Your task to perform on an android device: open wifi settings Image 0: 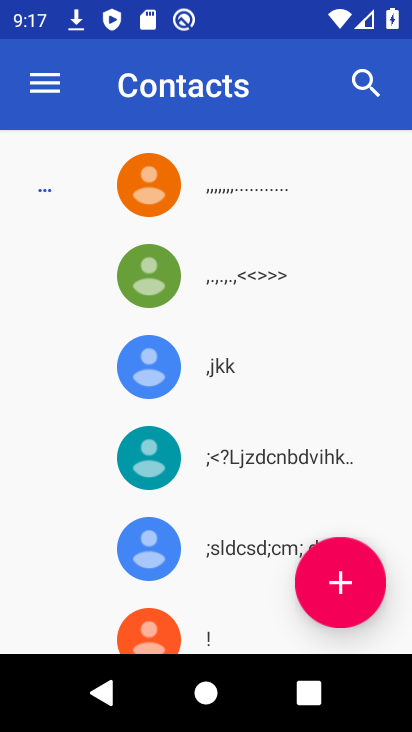
Step 0: press home button
Your task to perform on an android device: open wifi settings Image 1: 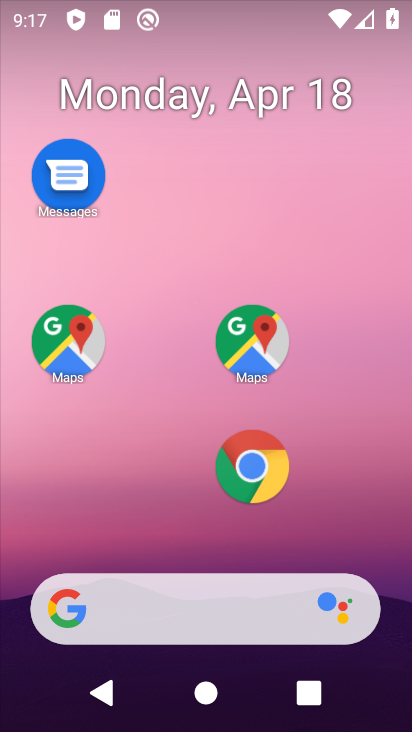
Step 1: drag from (177, 451) to (237, 7)
Your task to perform on an android device: open wifi settings Image 2: 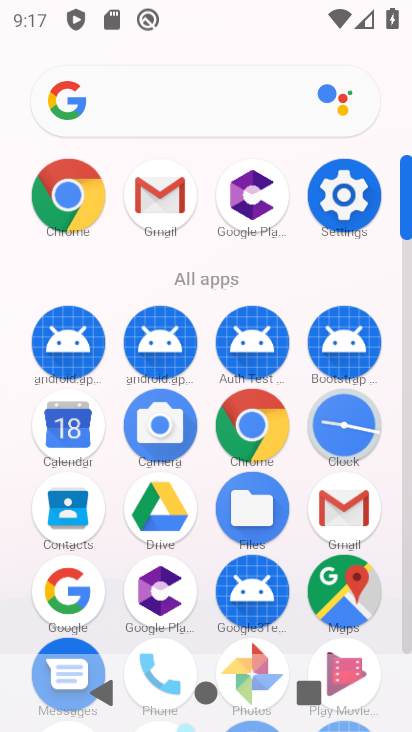
Step 2: click (350, 213)
Your task to perform on an android device: open wifi settings Image 3: 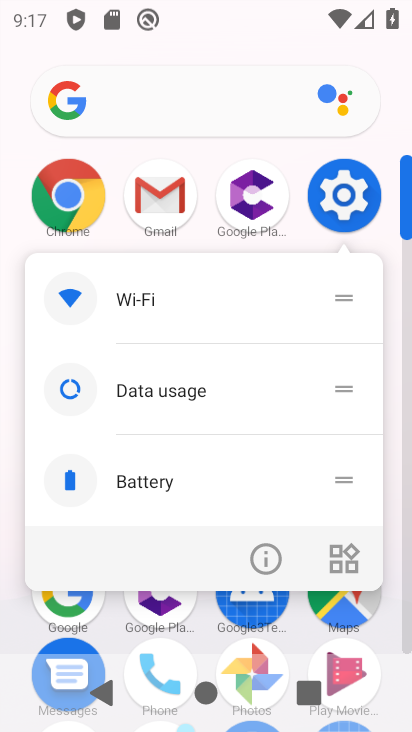
Step 3: click (118, 321)
Your task to perform on an android device: open wifi settings Image 4: 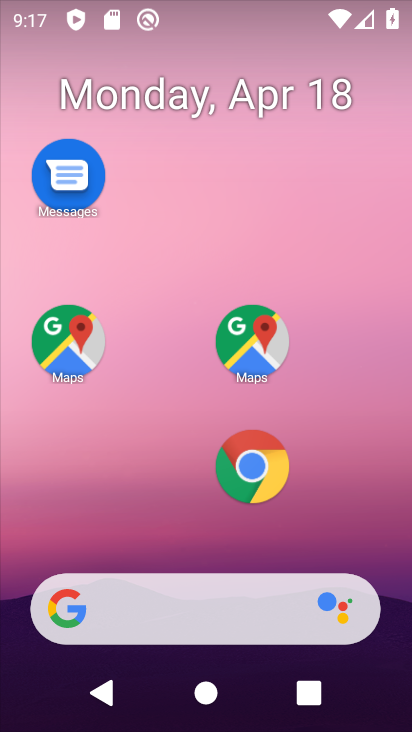
Step 4: drag from (183, 546) to (284, 3)
Your task to perform on an android device: open wifi settings Image 5: 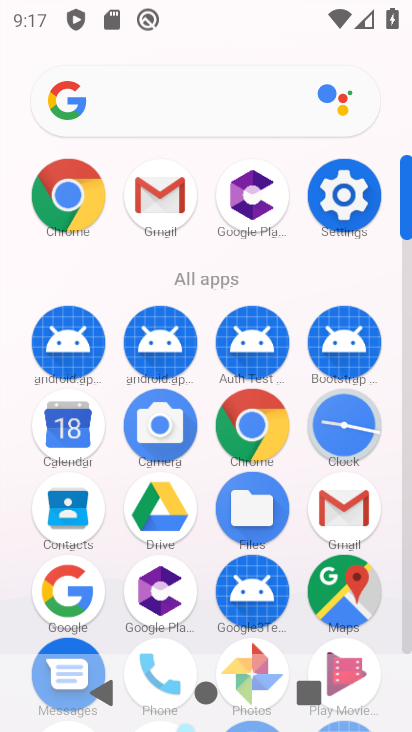
Step 5: click (361, 208)
Your task to perform on an android device: open wifi settings Image 6: 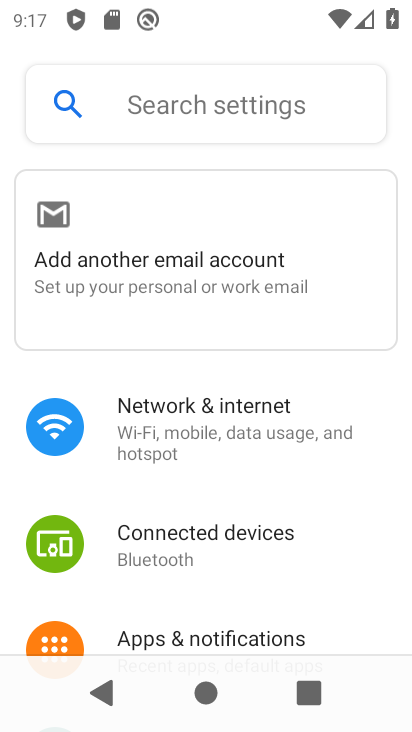
Step 6: click (158, 464)
Your task to perform on an android device: open wifi settings Image 7: 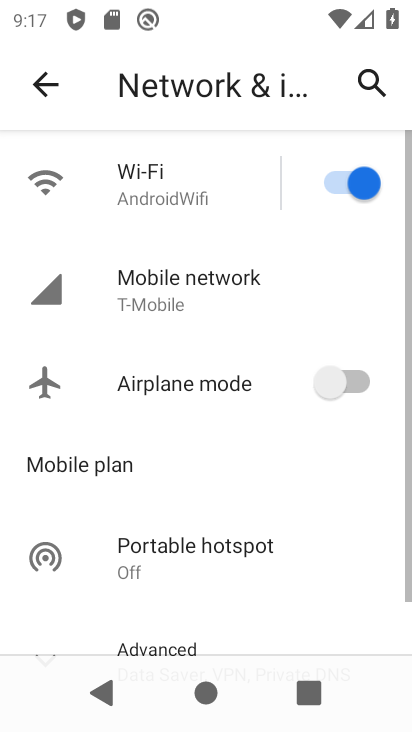
Step 7: click (139, 199)
Your task to perform on an android device: open wifi settings Image 8: 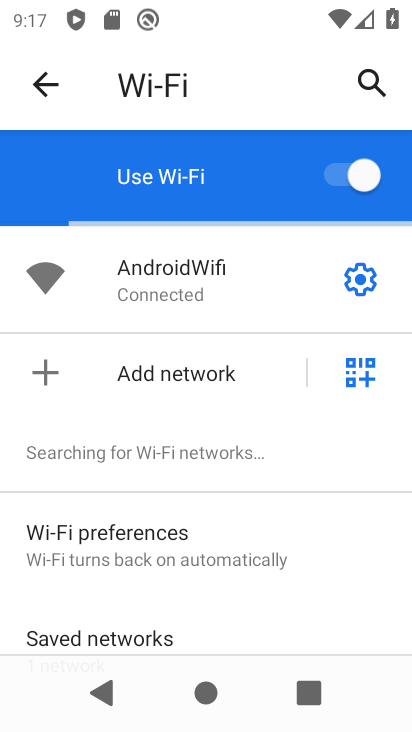
Step 8: task complete